Your task to perform on an android device: Open Chrome and go to the settings page Image 0: 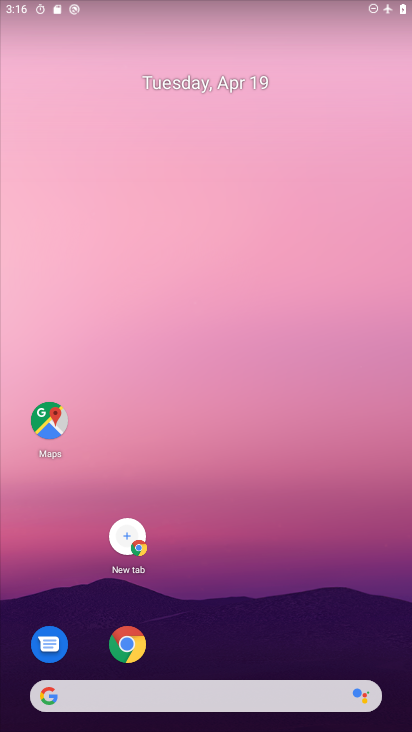
Step 0: click (134, 648)
Your task to perform on an android device: Open Chrome and go to the settings page Image 1: 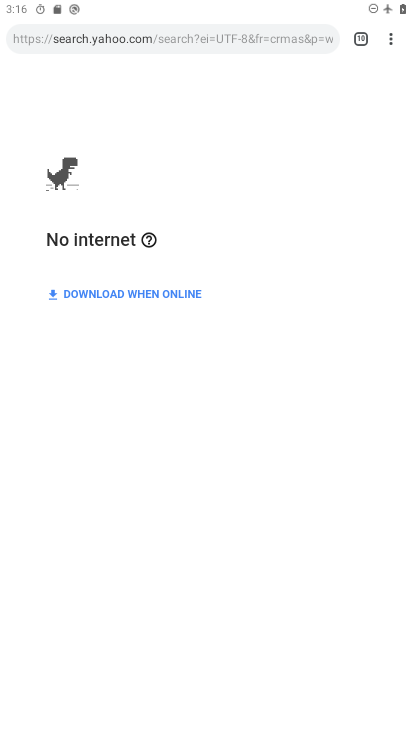
Step 1: click (389, 37)
Your task to perform on an android device: Open Chrome and go to the settings page Image 2: 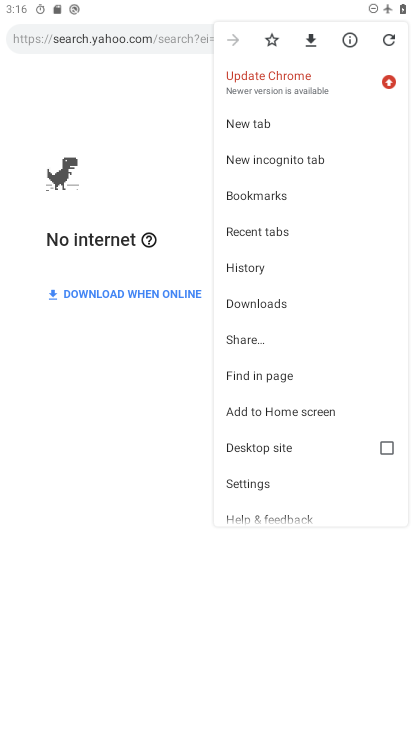
Step 2: click (252, 484)
Your task to perform on an android device: Open Chrome and go to the settings page Image 3: 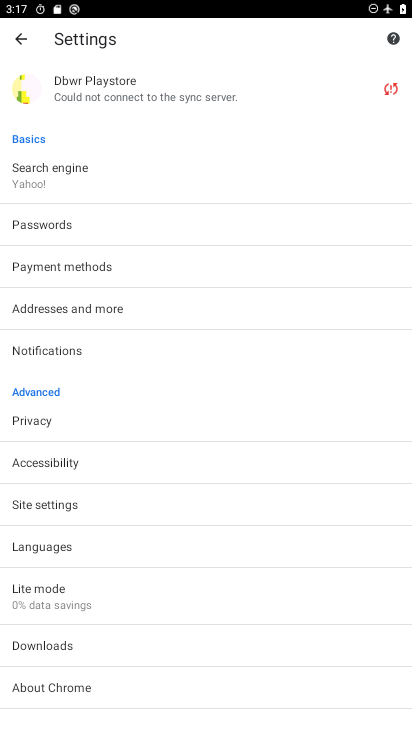
Step 3: task complete